Your task to perform on an android device: turn vacation reply on in the gmail app Image 0: 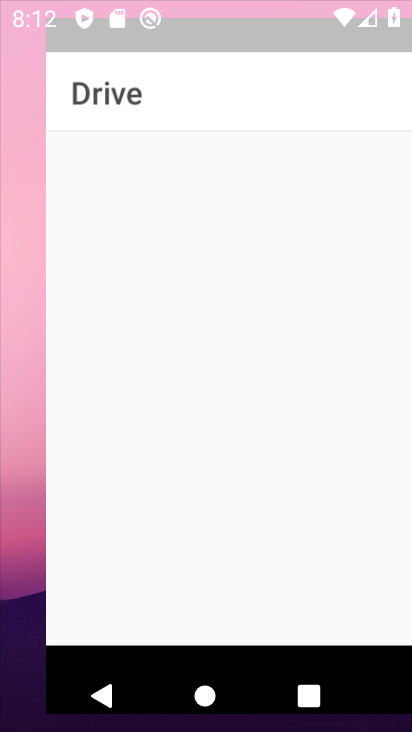
Step 0: press back button
Your task to perform on an android device: turn vacation reply on in the gmail app Image 1: 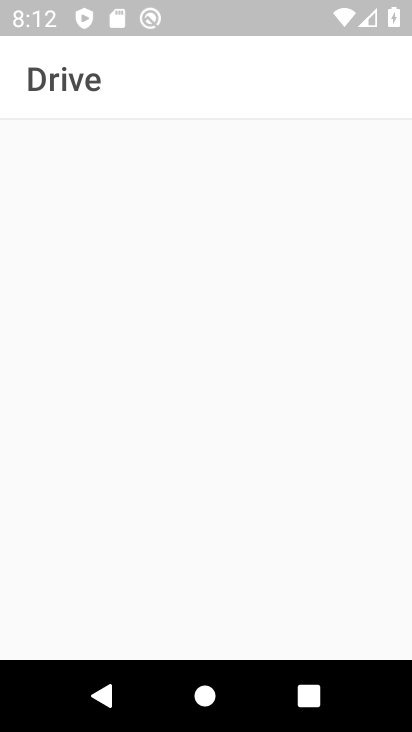
Step 1: press back button
Your task to perform on an android device: turn vacation reply on in the gmail app Image 2: 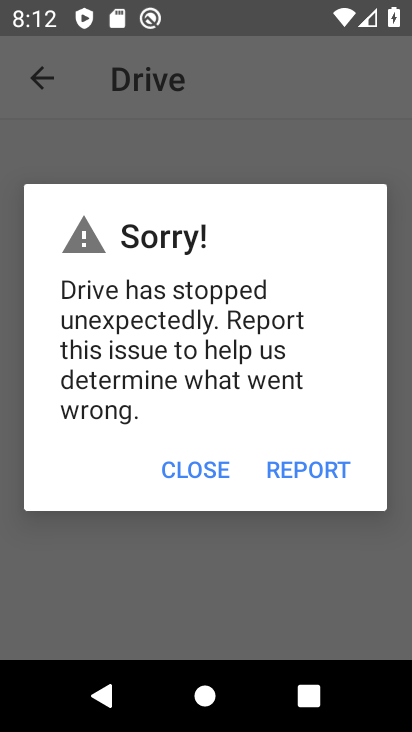
Step 2: click (206, 456)
Your task to perform on an android device: turn vacation reply on in the gmail app Image 3: 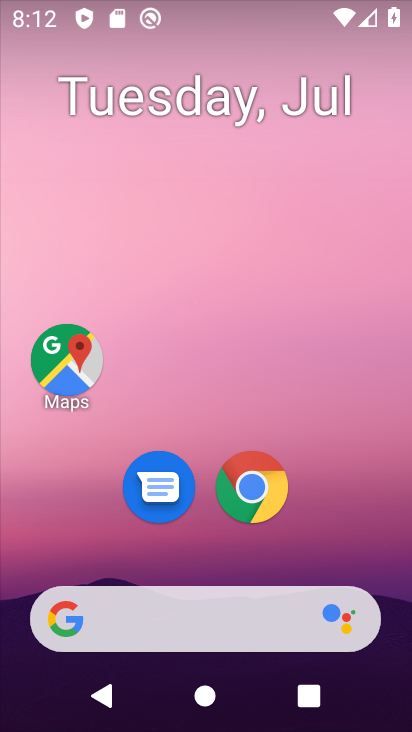
Step 3: drag from (84, 583) to (280, 2)
Your task to perform on an android device: turn vacation reply on in the gmail app Image 4: 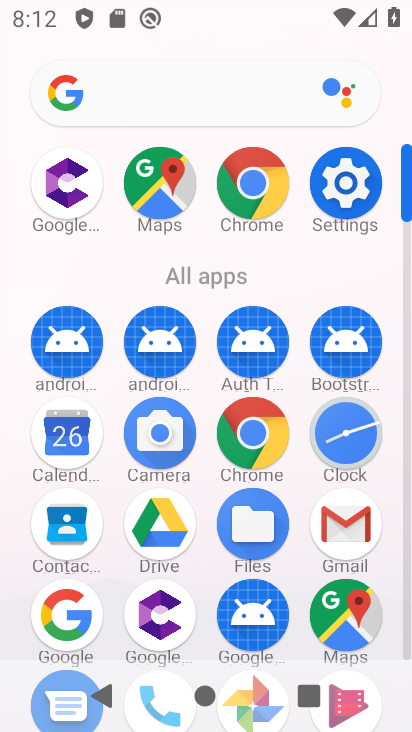
Step 4: click (334, 516)
Your task to perform on an android device: turn vacation reply on in the gmail app Image 5: 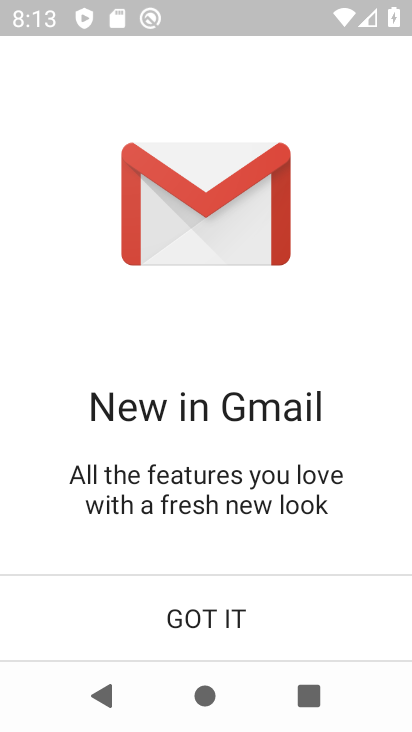
Step 5: click (191, 616)
Your task to perform on an android device: turn vacation reply on in the gmail app Image 6: 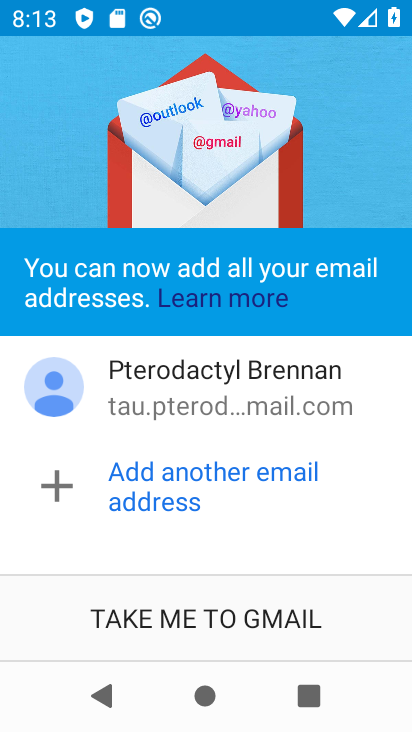
Step 6: click (207, 601)
Your task to perform on an android device: turn vacation reply on in the gmail app Image 7: 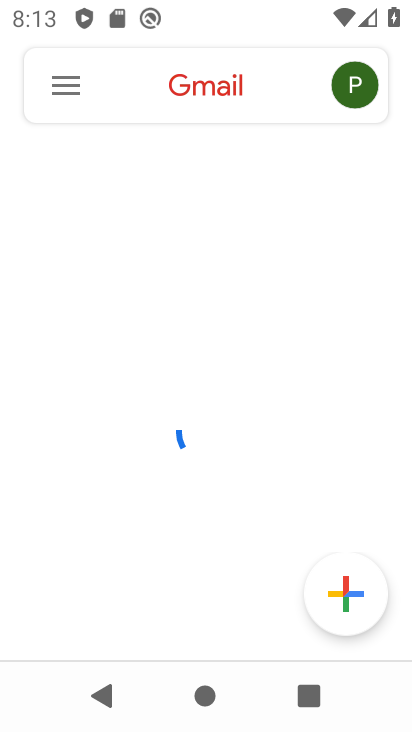
Step 7: click (57, 89)
Your task to perform on an android device: turn vacation reply on in the gmail app Image 8: 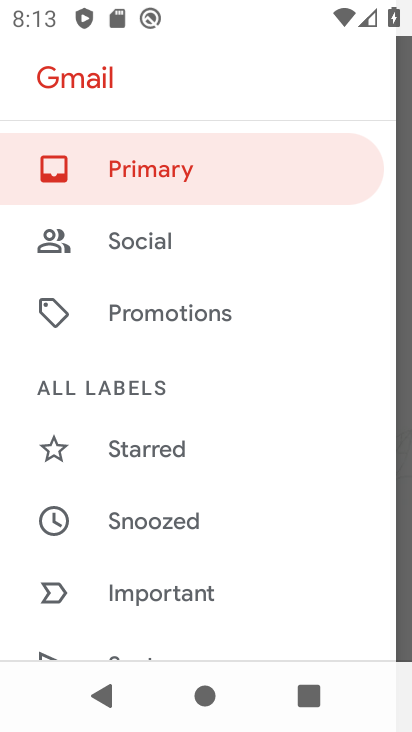
Step 8: drag from (138, 630) to (232, 213)
Your task to perform on an android device: turn vacation reply on in the gmail app Image 9: 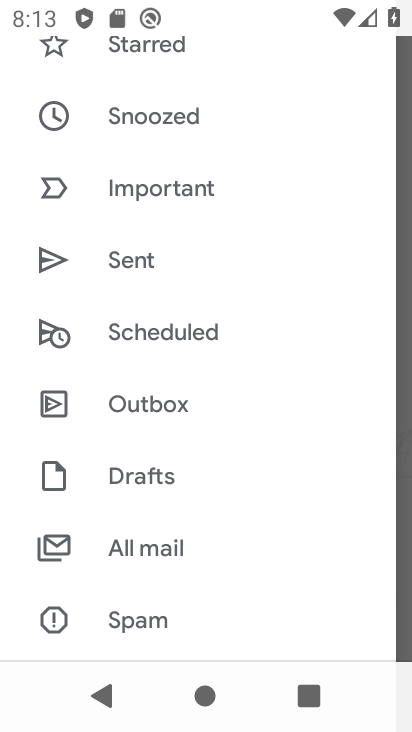
Step 9: drag from (159, 606) to (251, 5)
Your task to perform on an android device: turn vacation reply on in the gmail app Image 10: 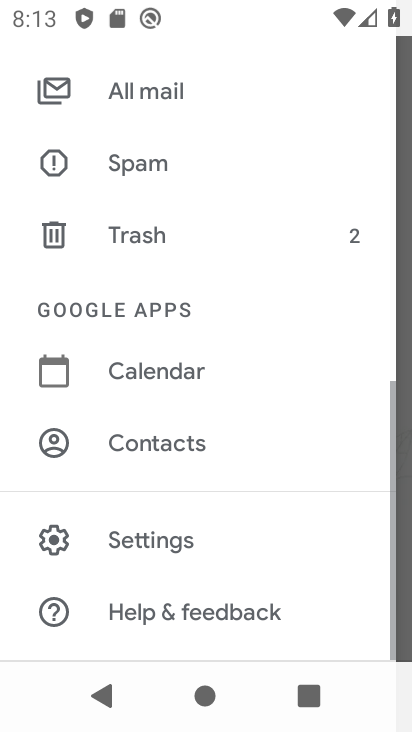
Step 10: click (149, 550)
Your task to perform on an android device: turn vacation reply on in the gmail app Image 11: 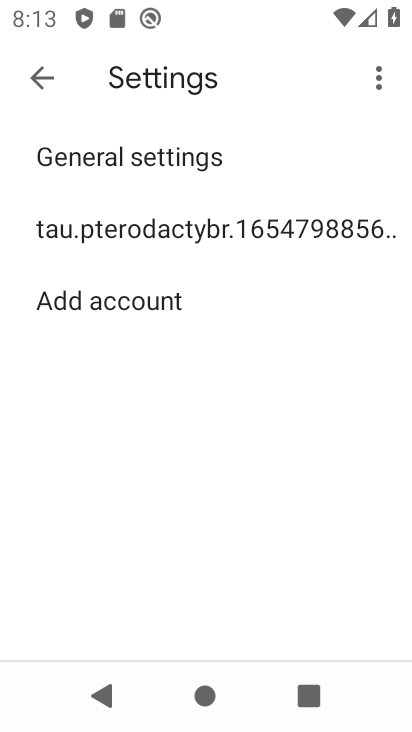
Step 11: click (175, 217)
Your task to perform on an android device: turn vacation reply on in the gmail app Image 12: 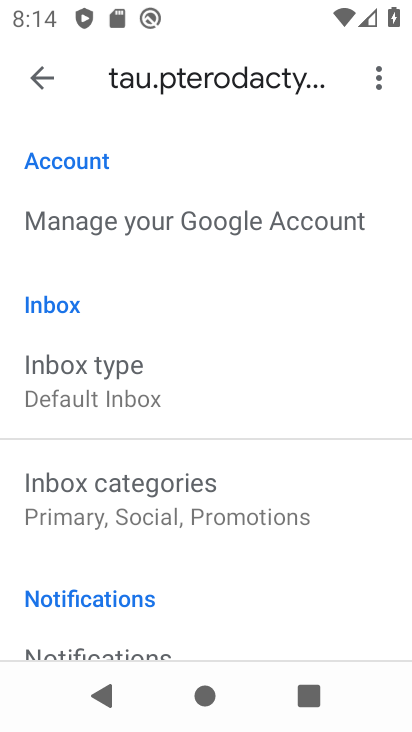
Step 12: drag from (199, 627) to (302, 68)
Your task to perform on an android device: turn vacation reply on in the gmail app Image 13: 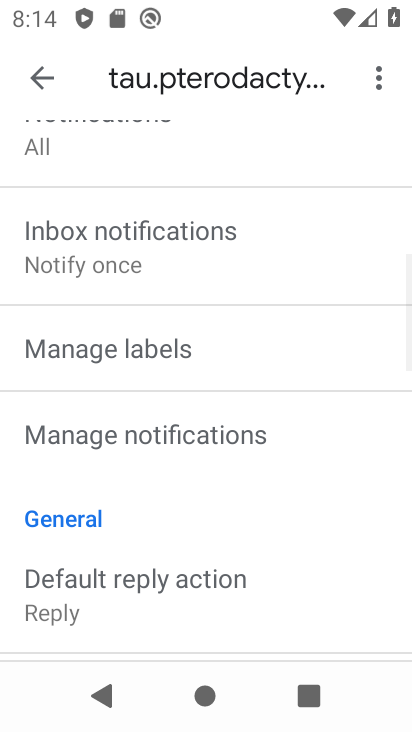
Step 13: drag from (182, 544) to (262, 139)
Your task to perform on an android device: turn vacation reply on in the gmail app Image 14: 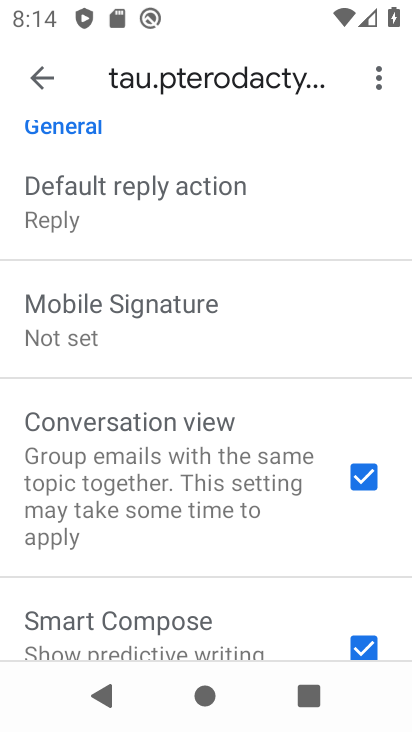
Step 14: drag from (174, 621) to (253, 96)
Your task to perform on an android device: turn vacation reply on in the gmail app Image 15: 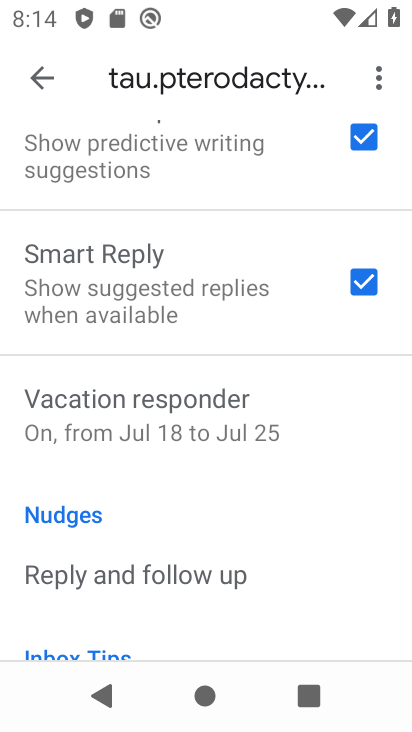
Step 15: click (144, 420)
Your task to perform on an android device: turn vacation reply on in the gmail app Image 16: 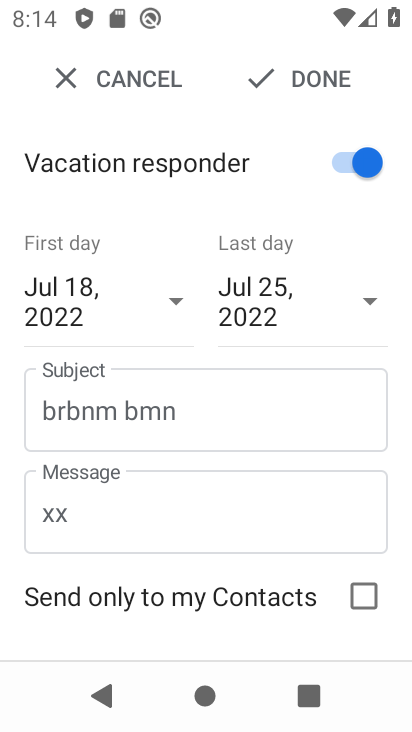
Step 16: task complete